Your task to perform on an android device: delete the emails in spam in the gmail app Image 0: 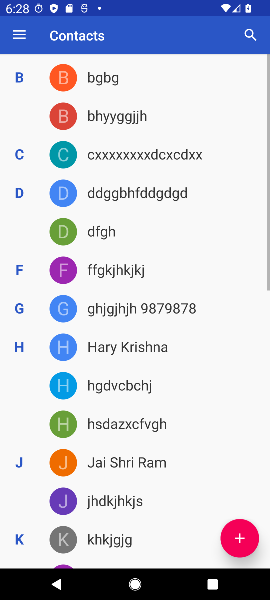
Step 0: press home button
Your task to perform on an android device: delete the emails in spam in the gmail app Image 1: 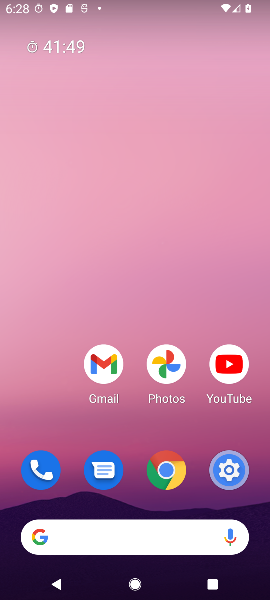
Step 1: drag from (114, 497) to (112, 157)
Your task to perform on an android device: delete the emails in spam in the gmail app Image 2: 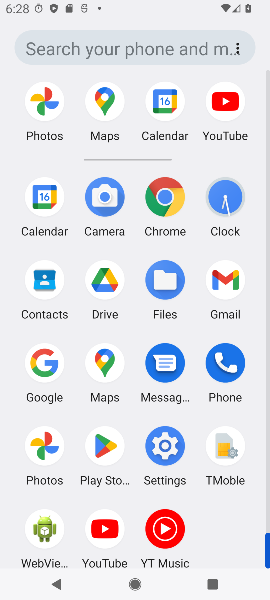
Step 2: click (227, 292)
Your task to perform on an android device: delete the emails in spam in the gmail app Image 3: 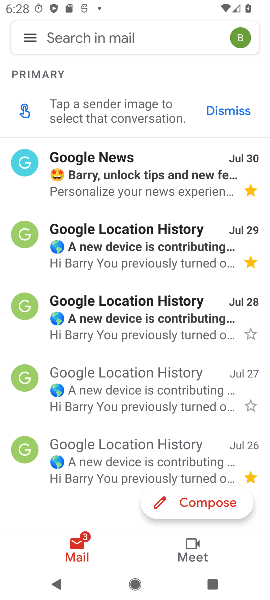
Step 3: click (121, 258)
Your task to perform on an android device: delete the emails in spam in the gmail app Image 4: 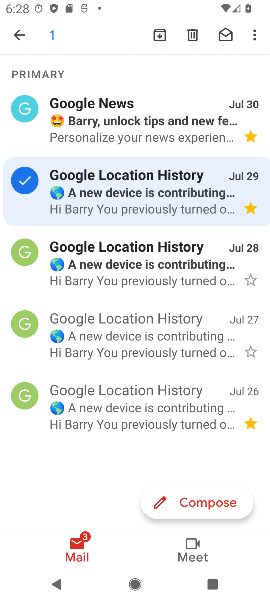
Step 4: click (33, 254)
Your task to perform on an android device: delete the emails in spam in the gmail app Image 5: 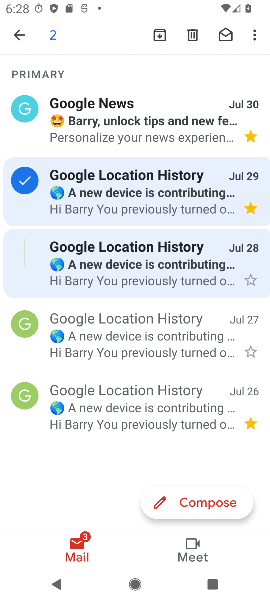
Step 5: click (22, 326)
Your task to perform on an android device: delete the emails in spam in the gmail app Image 6: 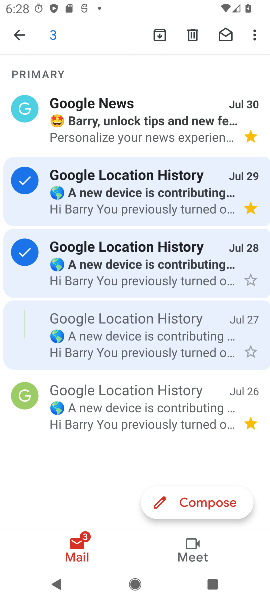
Step 6: click (23, 403)
Your task to perform on an android device: delete the emails in spam in the gmail app Image 7: 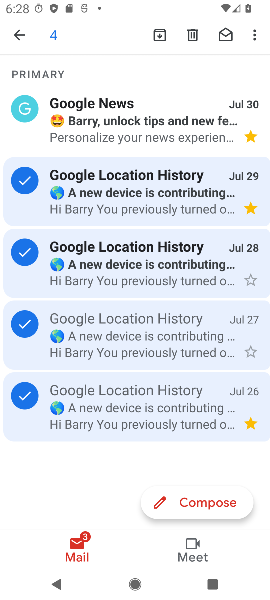
Step 7: click (28, 119)
Your task to perform on an android device: delete the emails in spam in the gmail app Image 8: 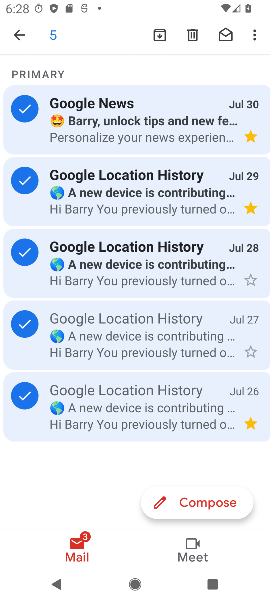
Step 8: click (193, 37)
Your task to perform on an android device: delete the emails in spam in the gmail app Image 9: 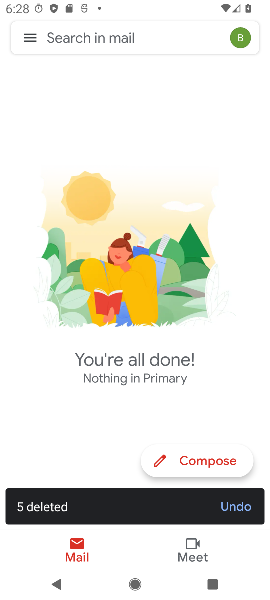
Step 9: task complete